Your task to perform on an android device: Open Youtube and go to the subscriptions tab Image 0: 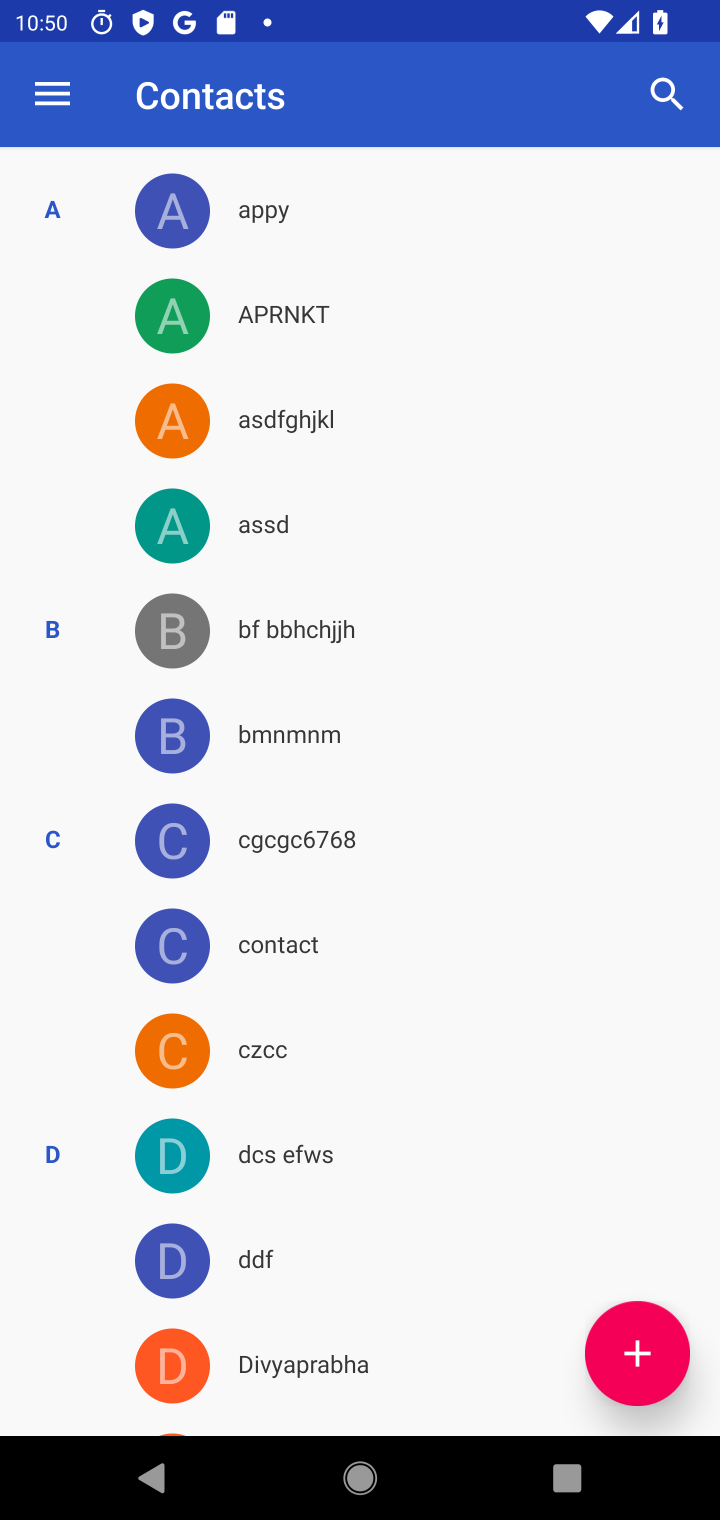
Step 0: press home button
Your task to perform on an android device: Open Youtube and go to the subscriptions tab Image 1: 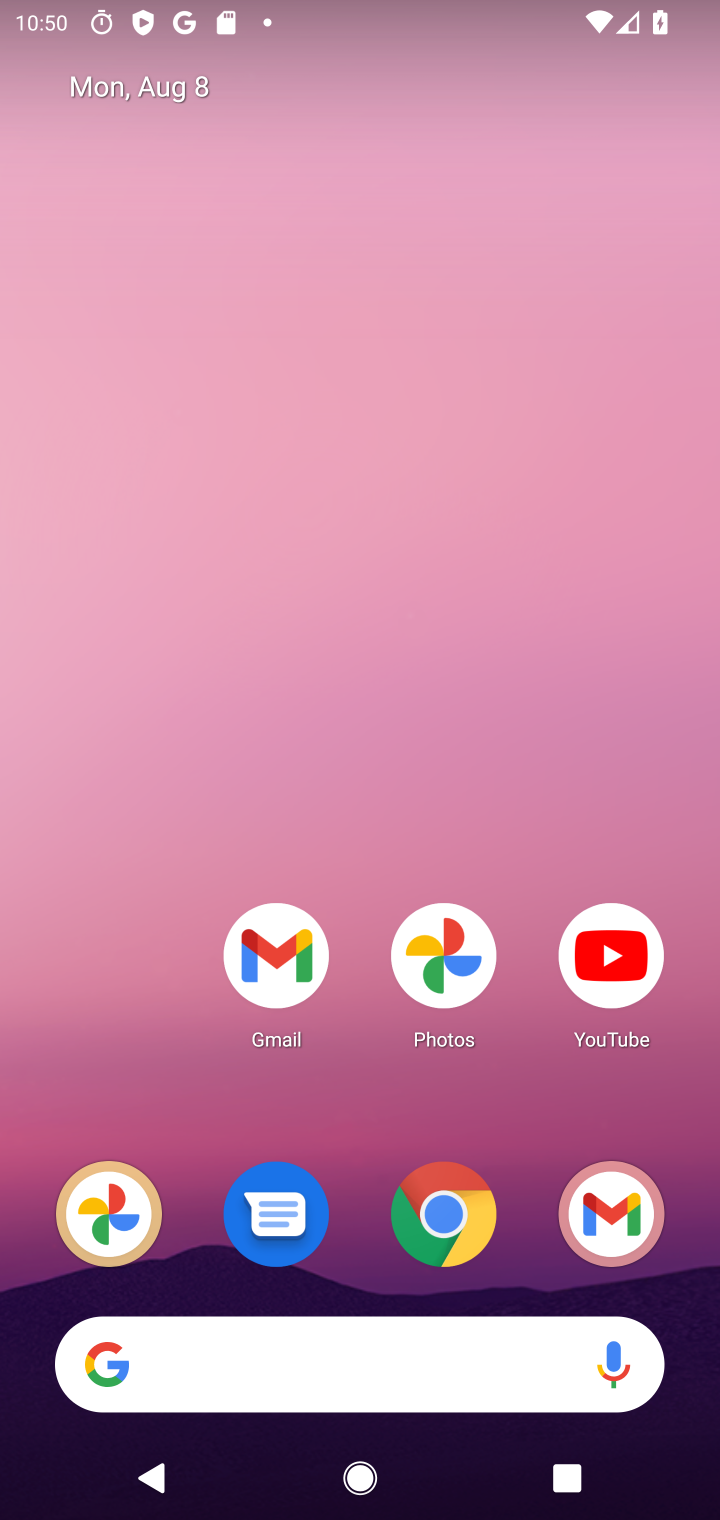
Step 1: click (611, 952)
Your task to perform on an android device: Open Youtube and go to the subscriptions tab Image 2: 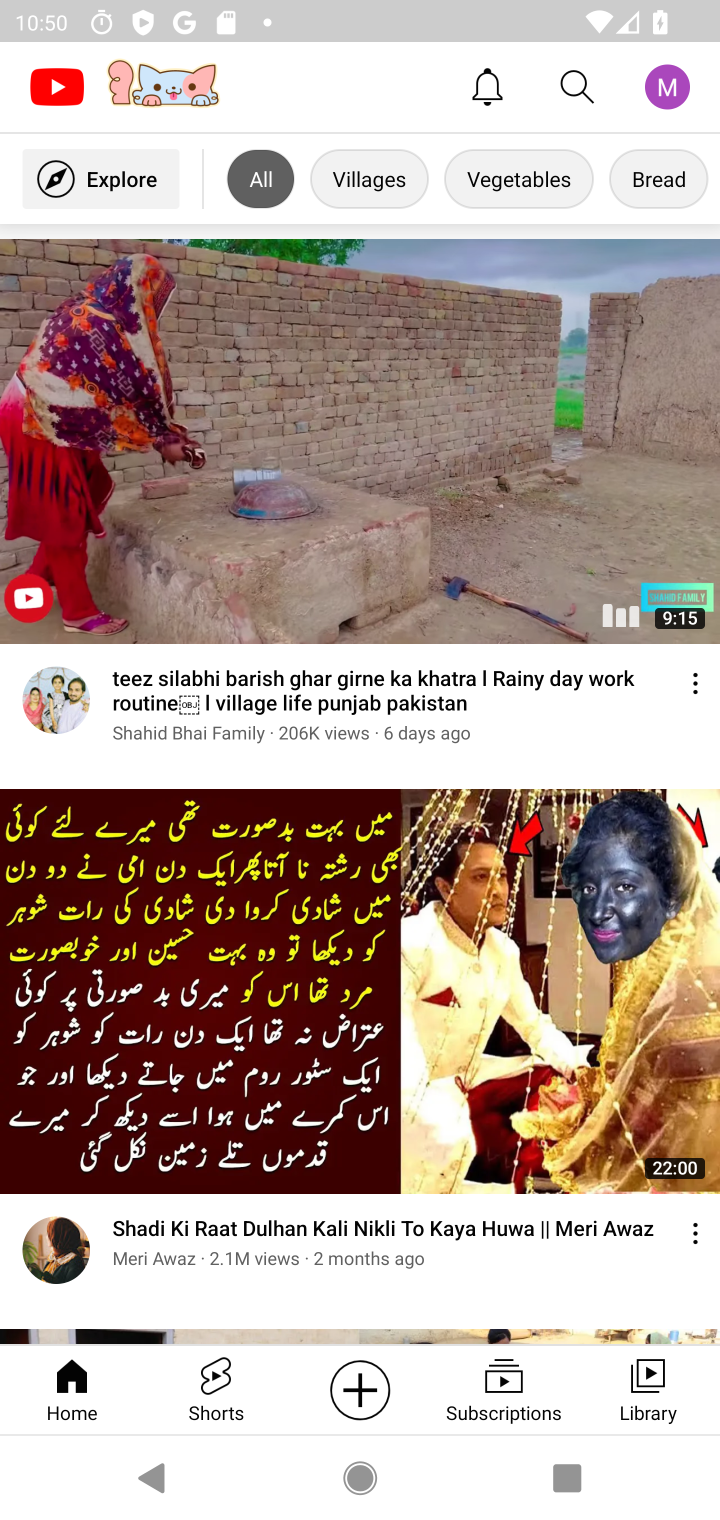
Step 2: click (511, 1358)
Your task to perform on an android device: Open Youtube and go to the subscriptions tab Image 3: 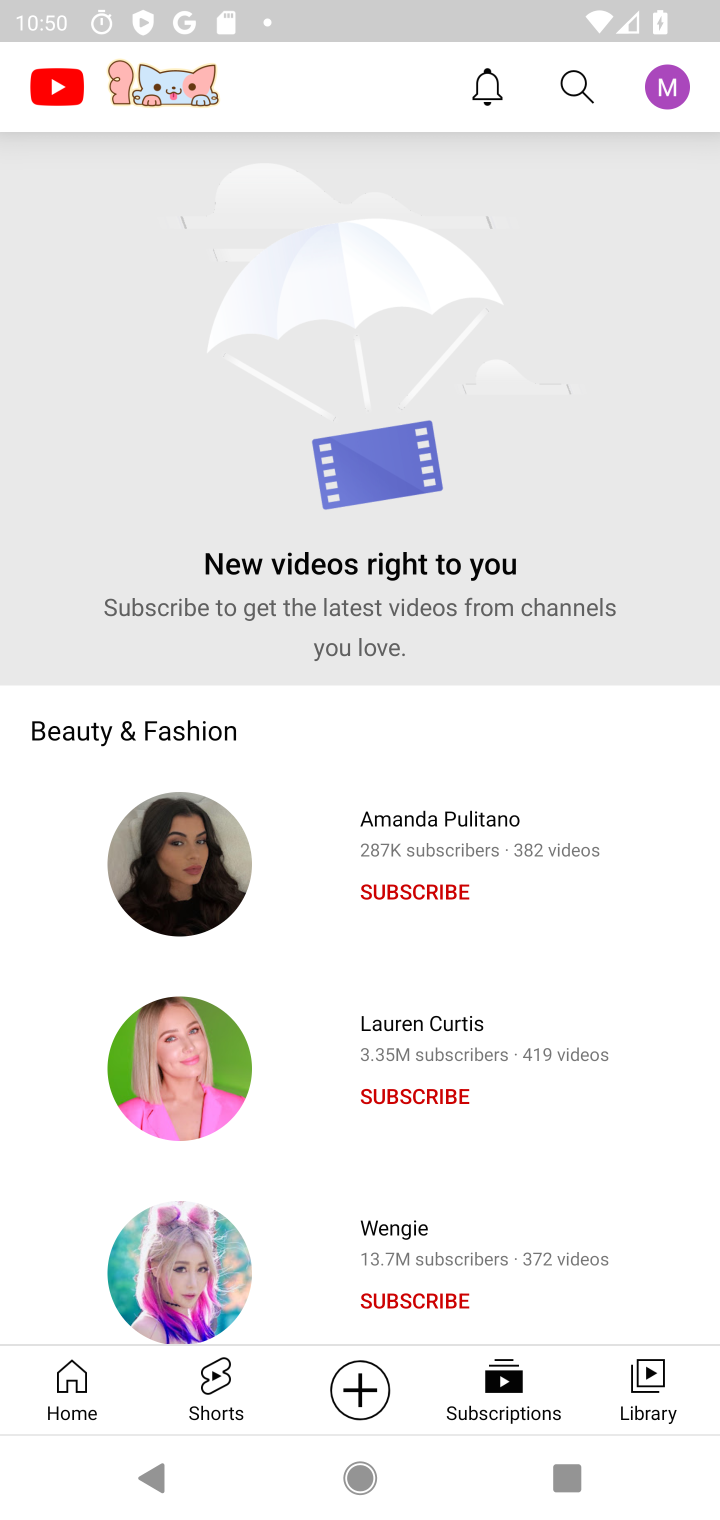
Step 3: task complete